Your task to perform on an android device: change alarm snooze length Image 0: 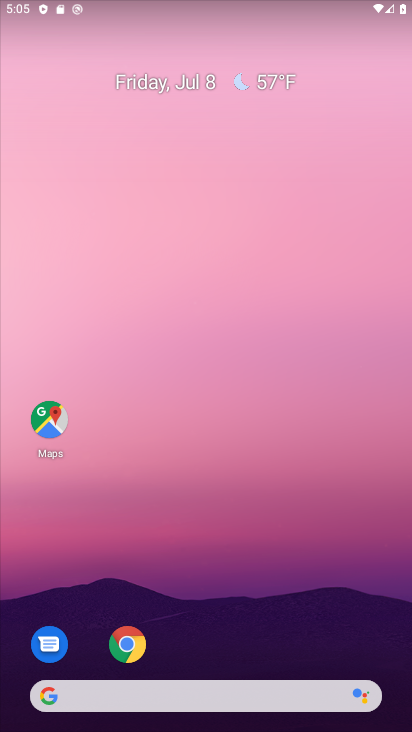
Step 0: drag from (221, 659) to (251, 44)
Your task to perform on an android device: change alarm snooze length Image 1: 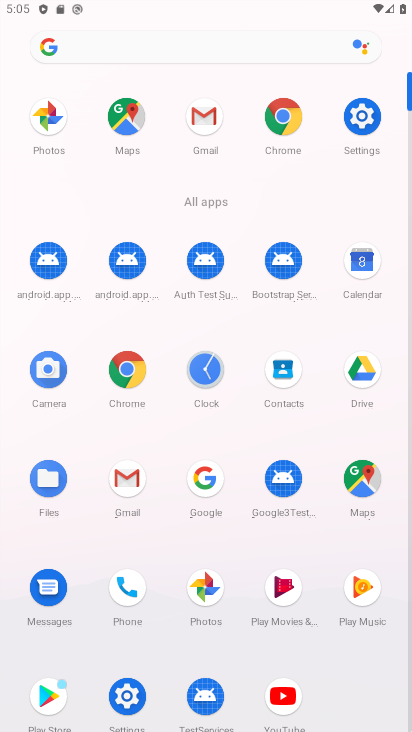
Step 1: click (203, 369)
Your task to perform on an android device: change alarm snooze length Image 2: 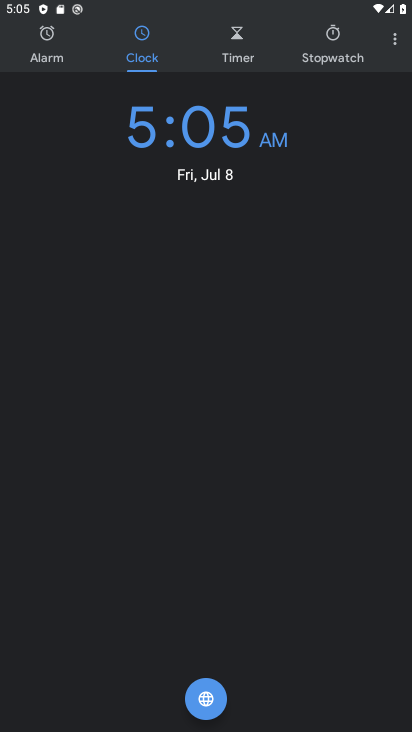
Step 2: click (398, 41)
Your task to perform on an android device: change alarm snooze length Image 3: 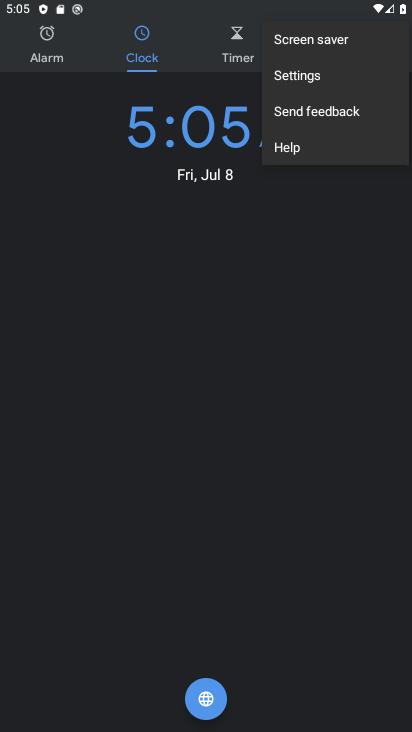
Step 3: click (311, 67)
Your task to perform on an android device: change alarm snooze length Image 4: 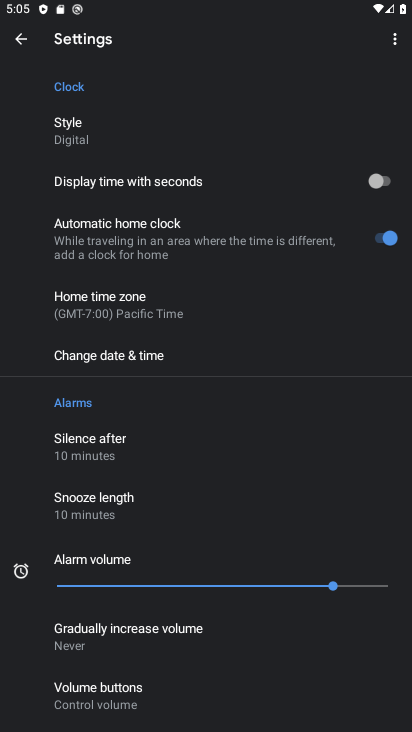
Step 4: drag from (119, 523) to (170, 438)
Your task to perform on an android device: change alarm snooze length Image 5: 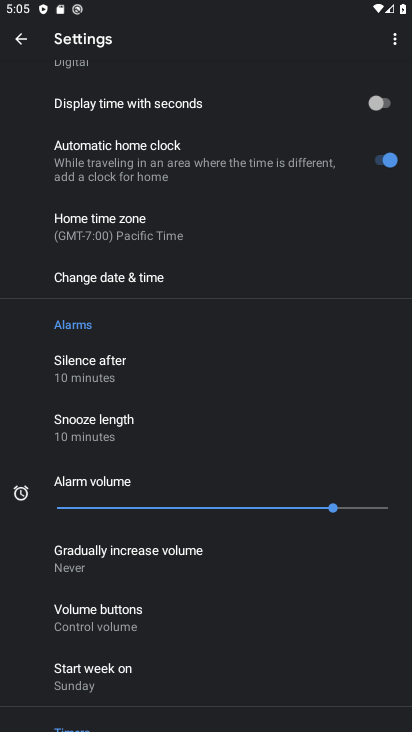
Step 5: click (159, 427)
Your task to perform on an android device: change alarm snooze length Image 6: 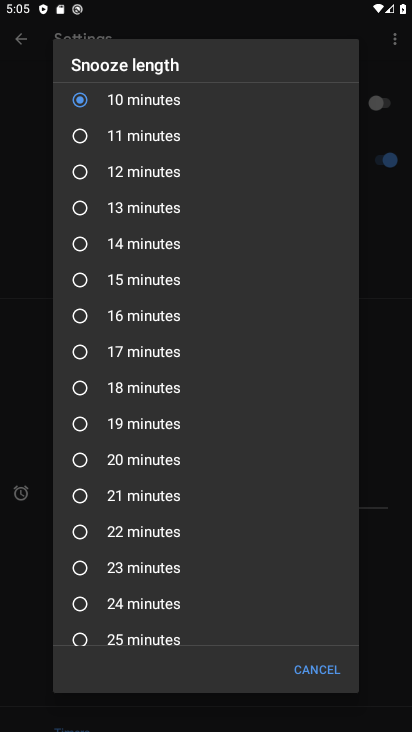
Step 6: drag from (121, 520) to (203, 381)
Your task to perform on an android device: change alarm snooze length Image 7: 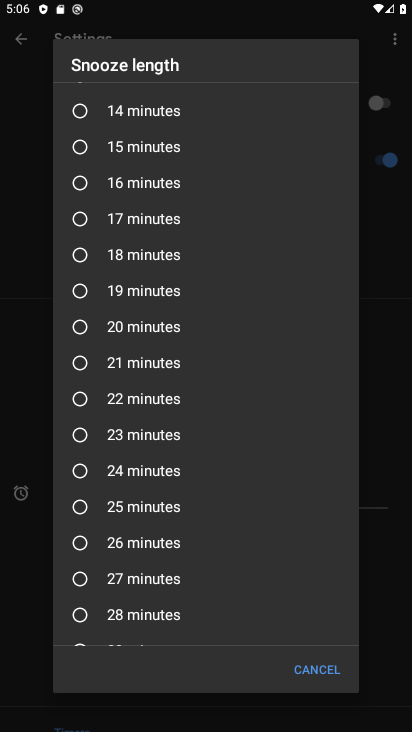
Step 7: click (89, 471)
Your task to perform on an android device: change alarm snooze length Image 8: 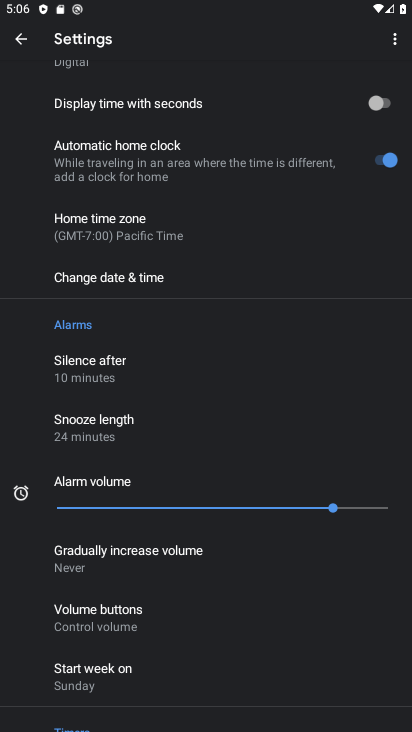
Step 8: task complete